Your task to perform on an android device: Search for sushi restaurants on Maps Image 0: 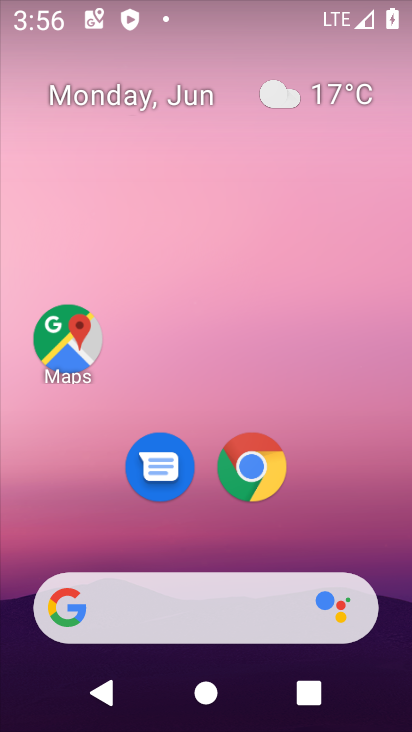
Step 0: click (69, 325)
Your task to perform on an android device: Search for sushi restaurants on Maps Image 1: 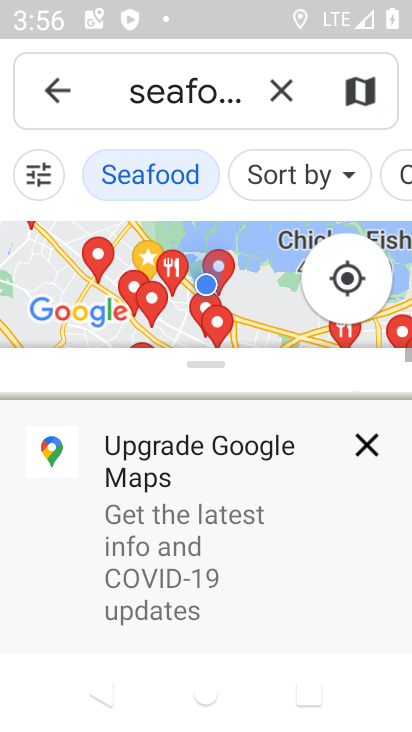
Step 1: click (164, 90)
Your task to perform on an android device: Search for sushi restaurants on Maps Image 2: 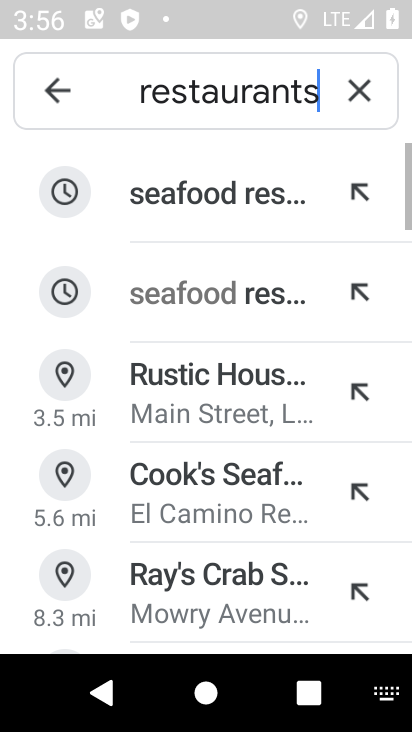
Step 2: click (369, 88)
Your task to perform on an android device: Search for sushi restaurants on Maps Image 3: 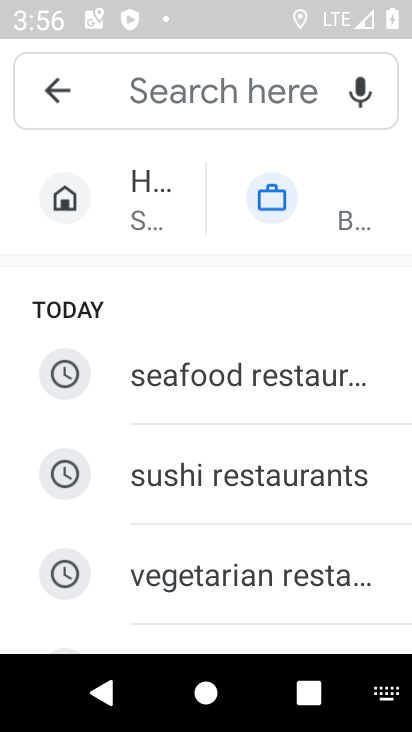
Step 3: type "Sushi Restaurants"
Your task to perform on an android device: Search for sushi restaurants on Maps Image 4: 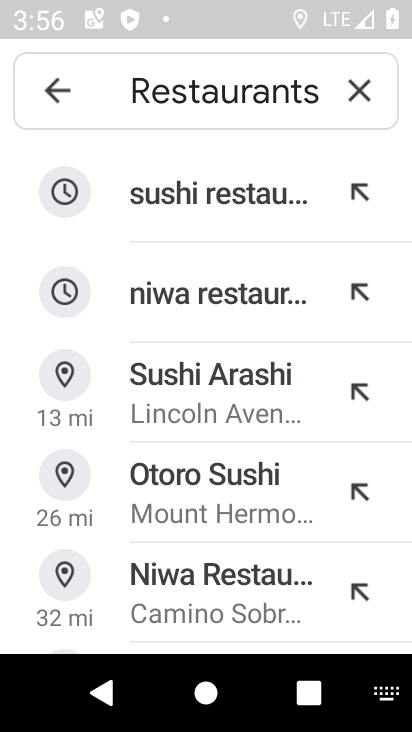
Step 4: click (209, 212)
Your task to perform on an android device: Search for sushi restaurants on Maps Image 5: 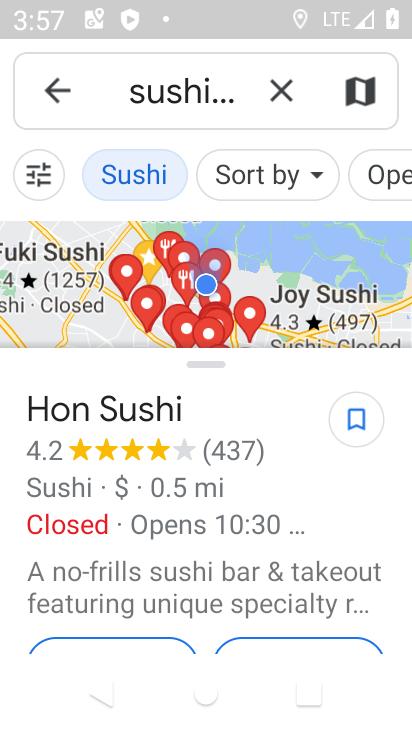
Step 5: task complete